Your task to perform on an android device: Go to settings Image 0: 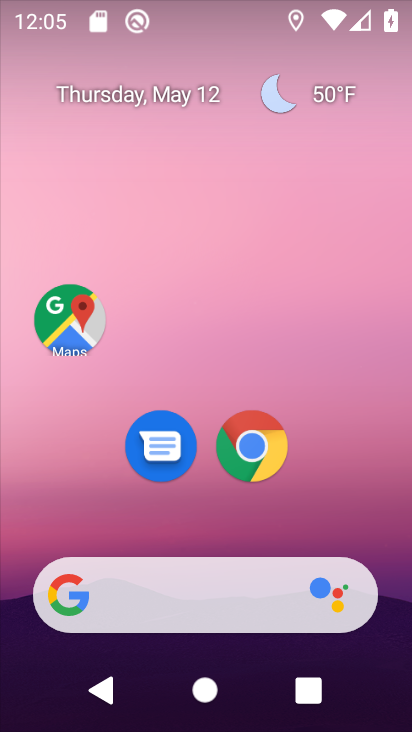
Step 0: click (326, 183)
Your task to perform on an android device: Go to settings Image 1: 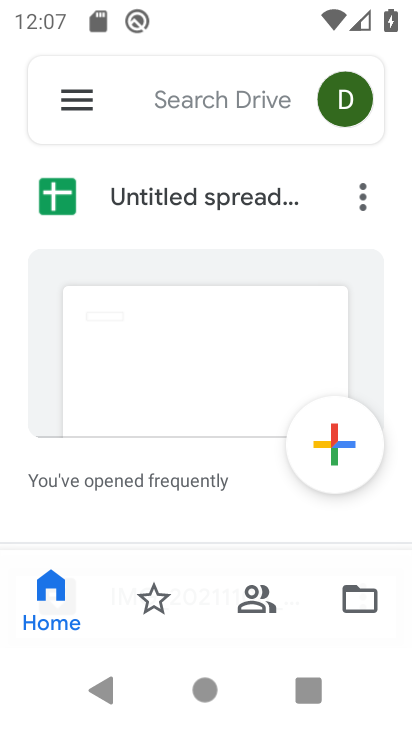
Step 1: press home button
Your task to perform on an android device: Go to settings Image 2: 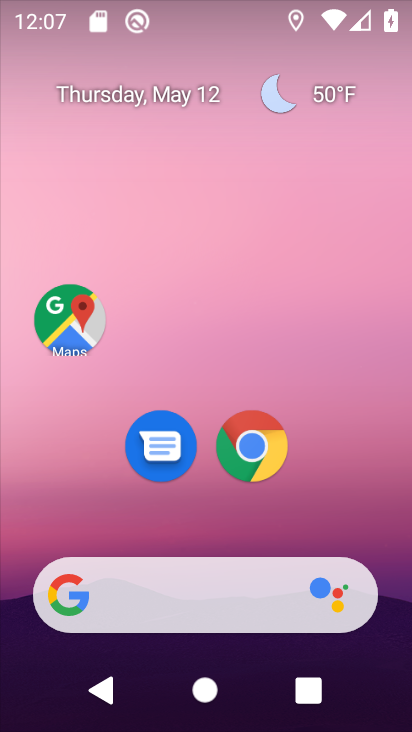
Step 2: drag from (264, 514) to (351, 116)
Your task to perform on an android device: Go to settings Image 3: 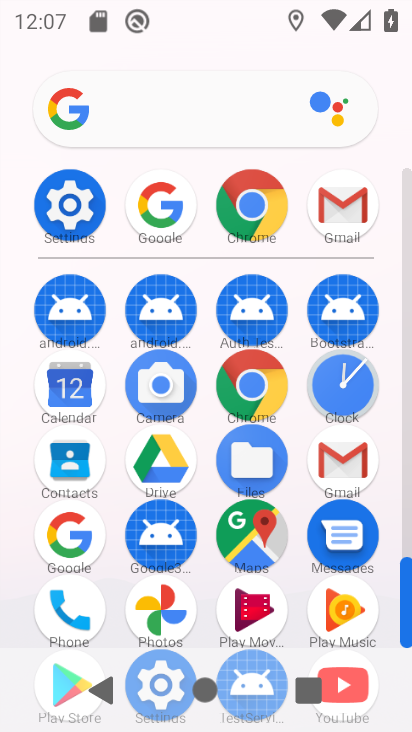
Step 3: click (68, 224)
Your task to perform on an android device: Go to settings Image 4: 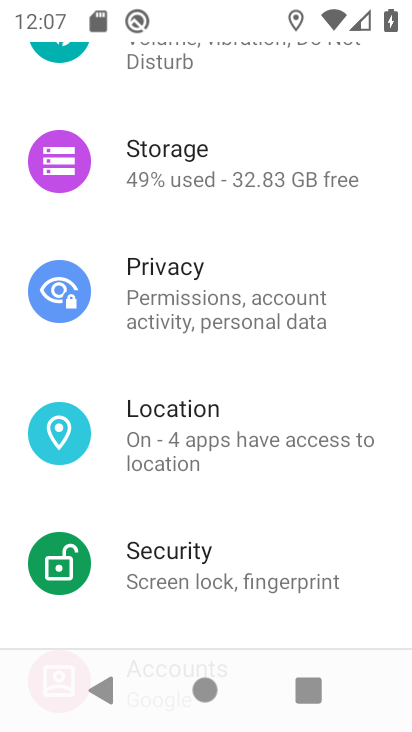
Step 4: task complete